Your task to perform on an android device: turn on bluetooth scan Image 0: 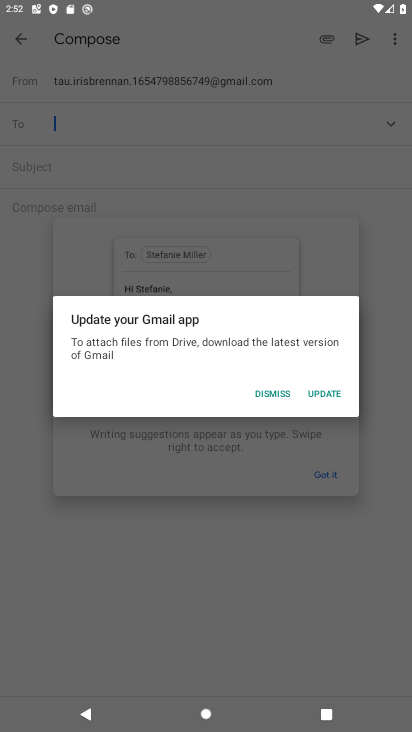
Step 0: press home button
Your task to perform on an android device: turn on bluetooth scan Image 1: 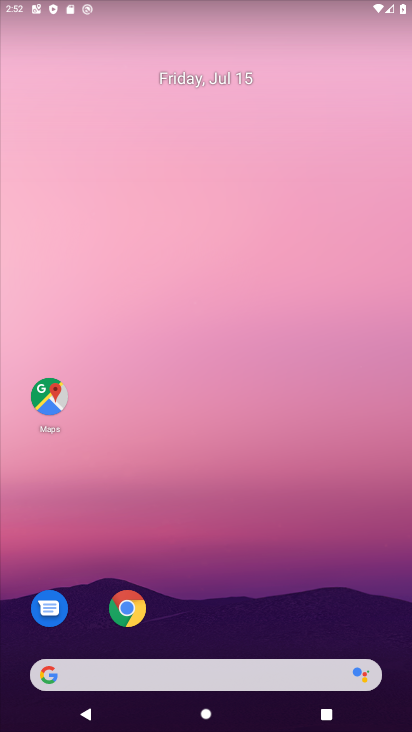
Step 1: drag from (235, 606) to (294, 219)
Your task to perform on an android device: turn on bluetooth scan Image 2: 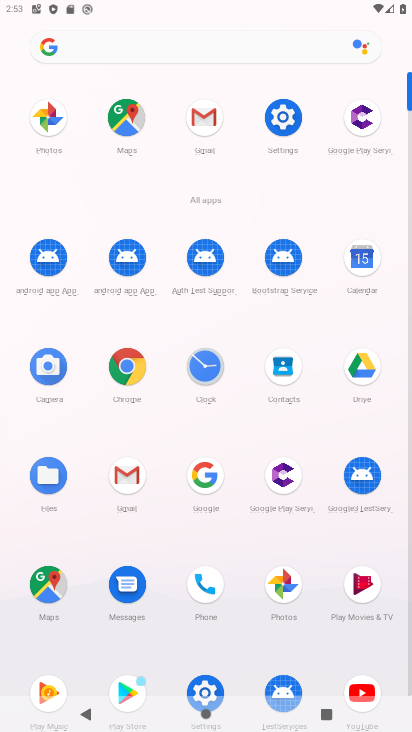
Step 2: click (215, 689)
Your task to perform on an android device: turn on bluetooth scan Image 3: 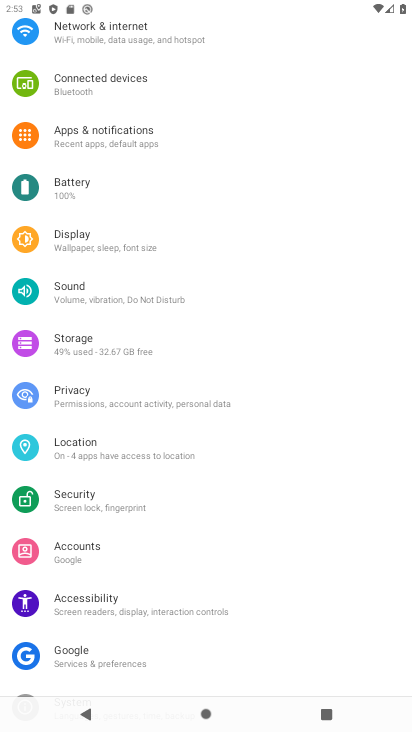
Step 3: click (169, 89)
Your task to perform on an android device: turn on bluetooth scan Image 4: 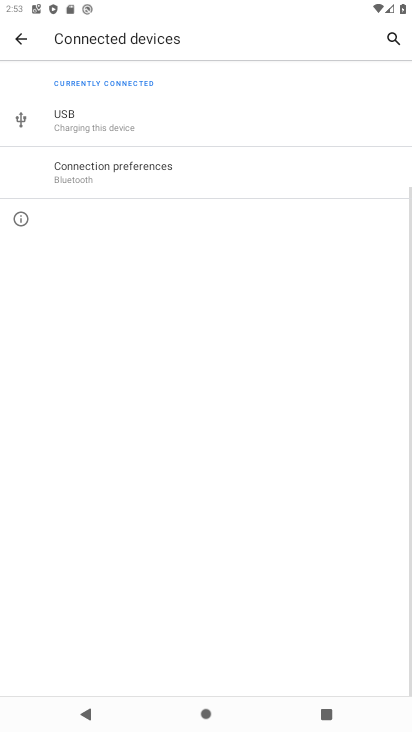
Step 4: click (167, 158)
Your task to perform on an android device: turn on bluetooth scan Image 5: 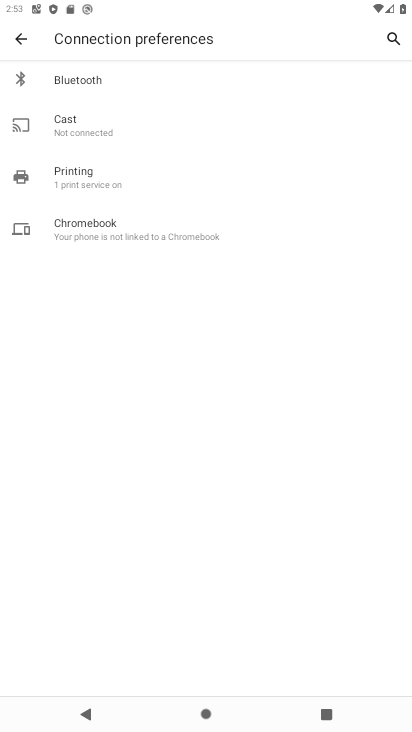
Step 5: click (188, 76)
Your task to perform on an android device: turn on bluetooth scan Image 6: 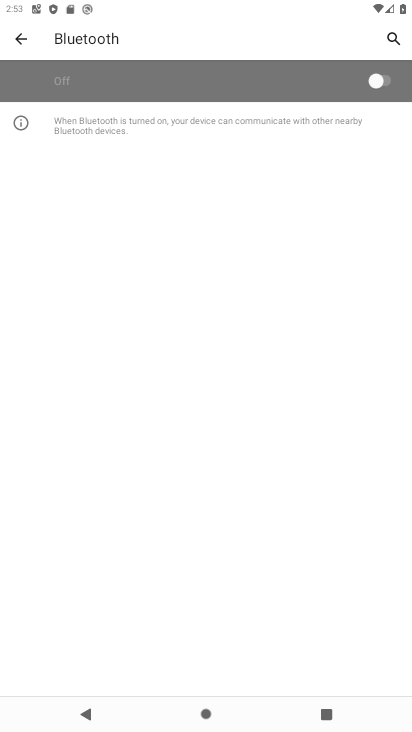
Step 6: click (394, 84)
Your task to perform on an android device: turn on bluetooth scan Image 7: 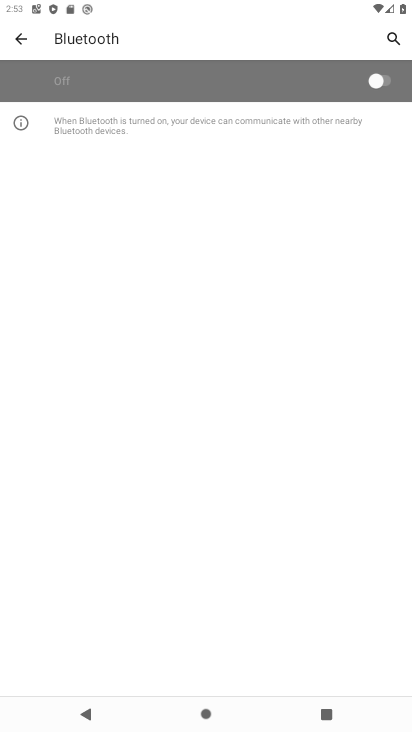
Step 7: task complete